Your task to perform on an android device: turn off airplane mode Image 0: 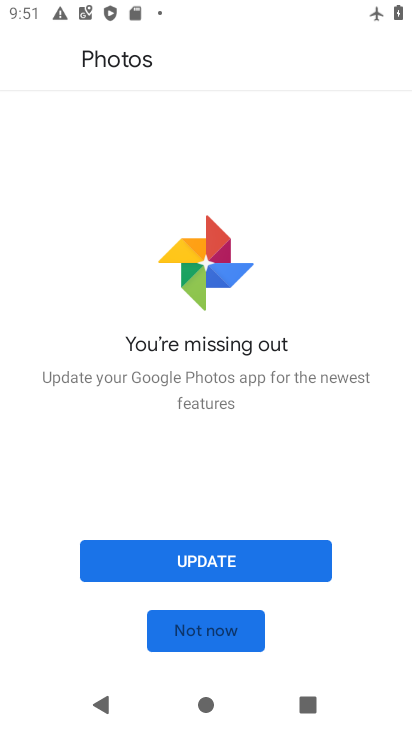
Step 0: press home button
Your task to perform on an android device: turn off airplane mode Image 1: 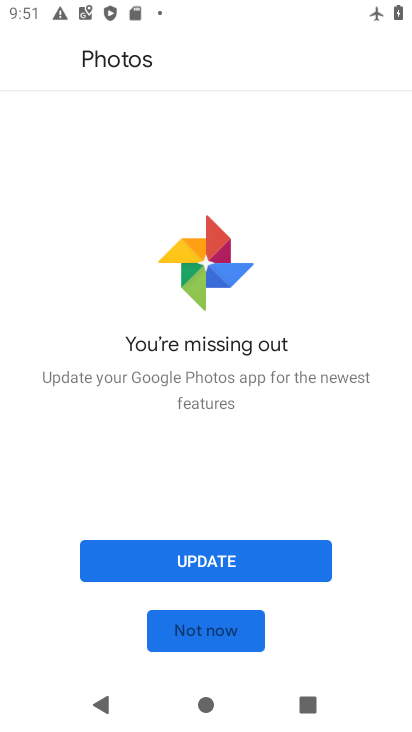
Step 1: press home button
Your task to perform on an android device: turn off airplane mode Image 2: 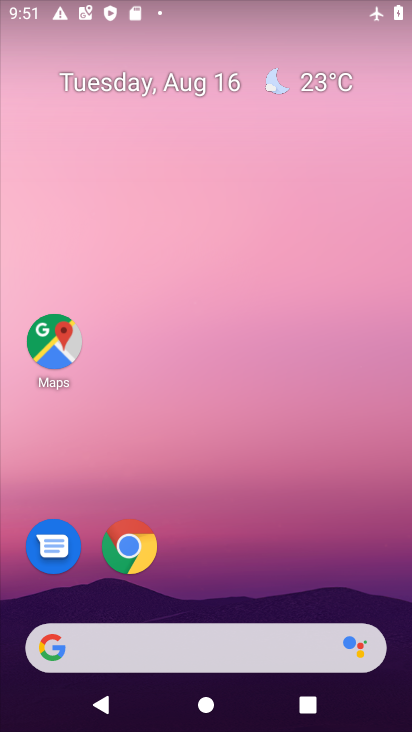
Step 2: drag from (215, 537) to (273, 0)
Your task to perform on an android device: turn off airplane mode Image 3: 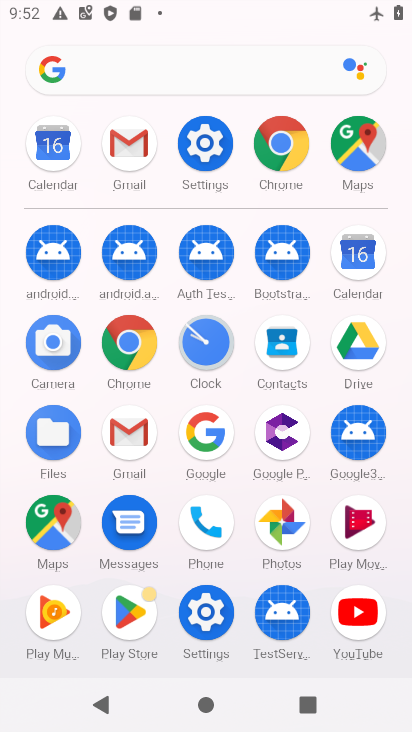
Step 3: click (205, 146)
Your task to perform on an android device: turn off airplane mode Image 4: 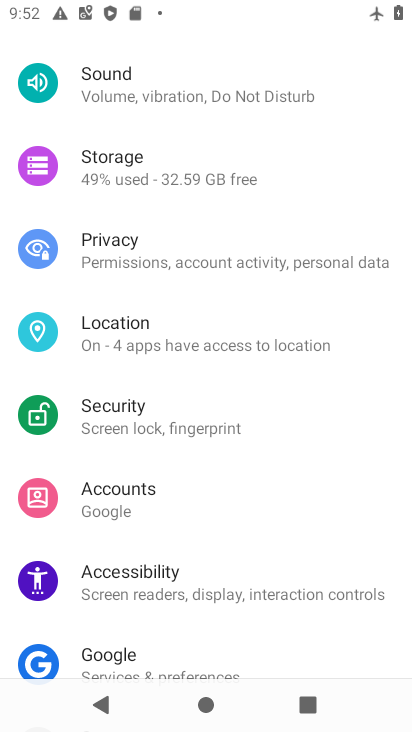
Step 4: drag from (205, 146) to (187, 550)
Your task to perform on an android device: turn off airplane mode Image 5: 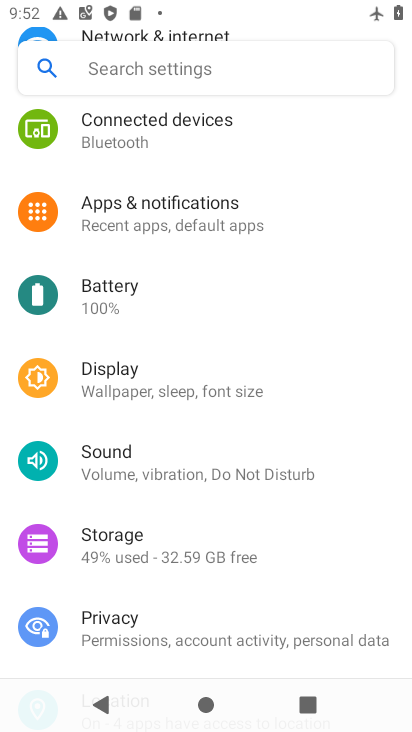
Step 5: drag from (233, 265) to (215, 550)
Your task to perform on an android device: turn off airplane mode Image 6: 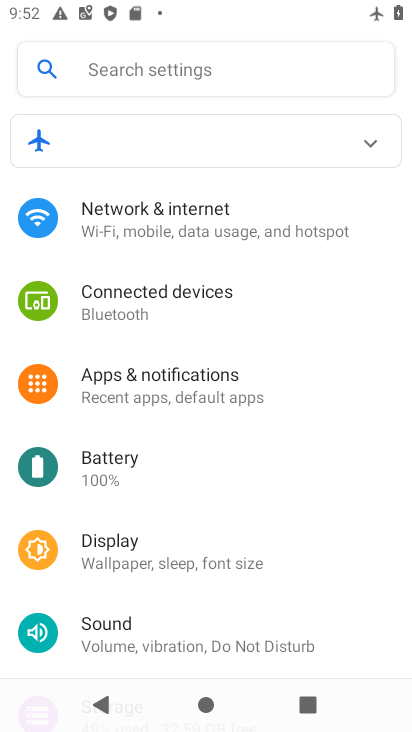
Step 6: click (221, 221)
Your task to perform on an android device: turn off airplane mode Image 7: 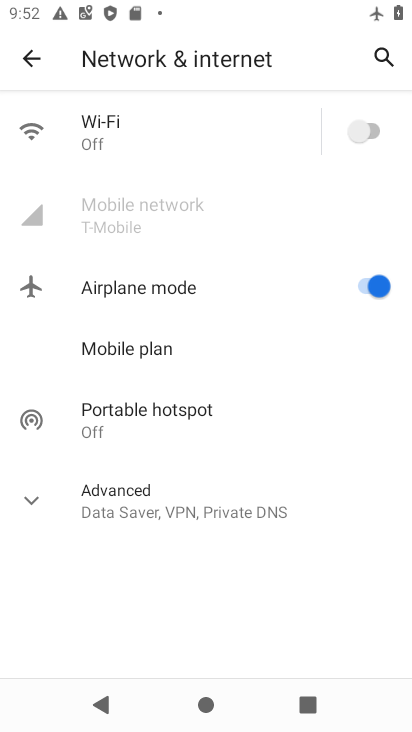
Step 7: click (369, 284)
Your task to perform on an android device: turn off airplane mode Image 8: 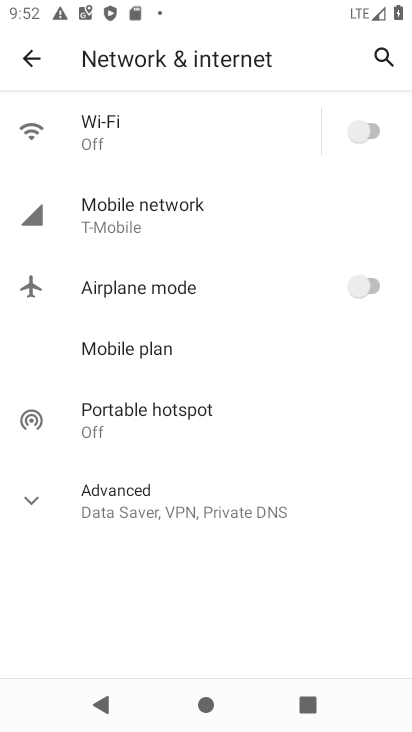
Step 8: click (367, 132)
Your task to perform on an android device: turn off airplane mode Image 9: 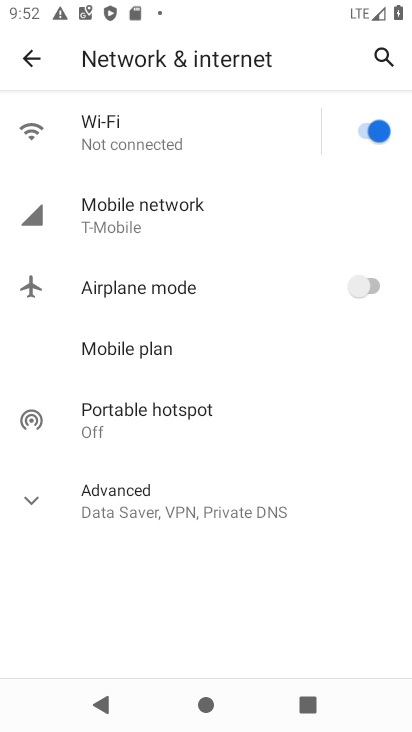
Step 9: task complete